Your task to perform on an android device: open app "Chime – Mobile Banking" (install if not already installed) and go to login screen Image 0: 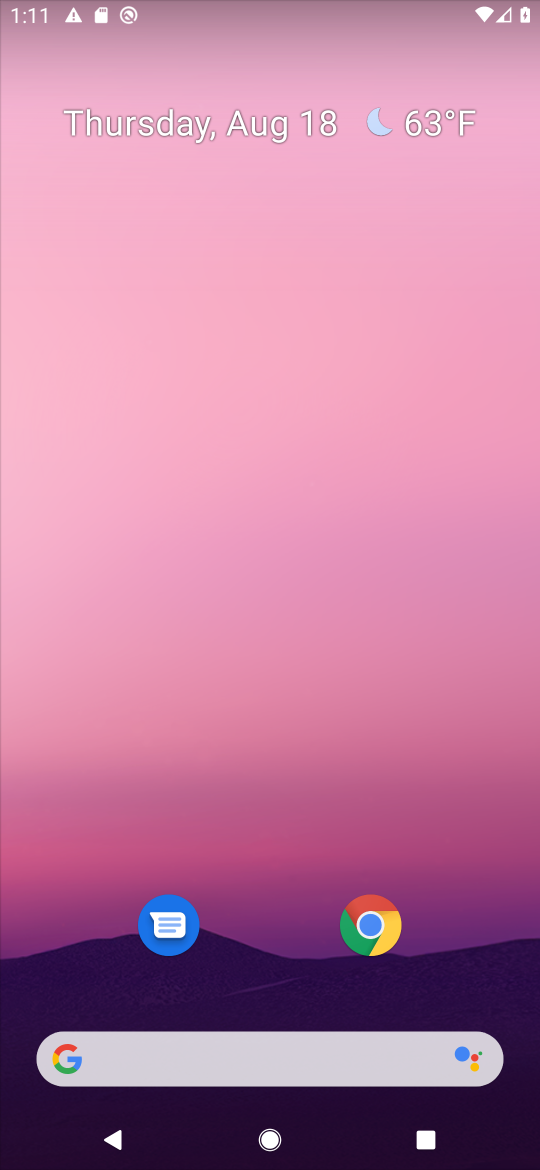
Step 0: click (291, 918)
Your task to perform on an android device: open app "Chime – Mobile Banking" (install if not already installed) and go to login screen Image 1: 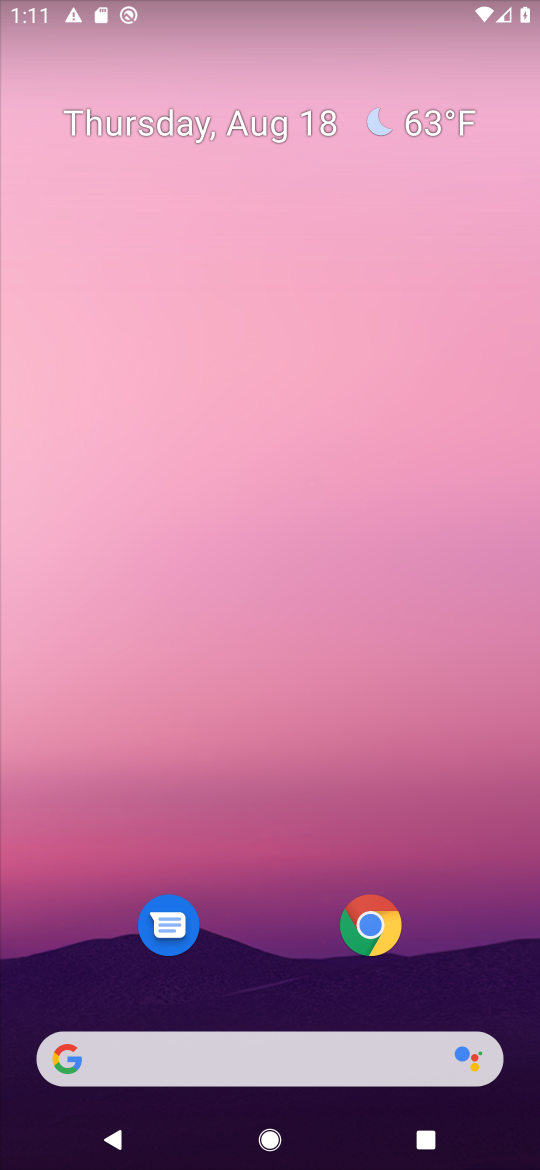
Step 1: drag from (245, 977) to (274, 251)
Your task to perform on an android device: open app "Chime – Mobile Banking" (install if not already installed) and go to login screen Image 2: 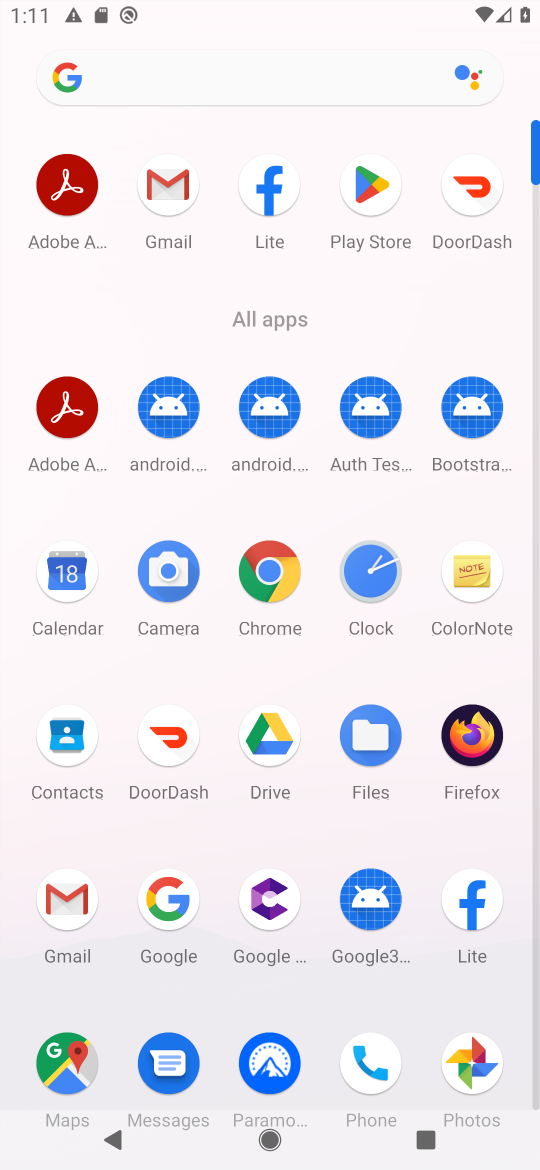
Step 2: click (368, 195)
Your task to perform on an android device: open app "Chime – Mobile Banking" (install if not already installed) and go to login screen Image 3: 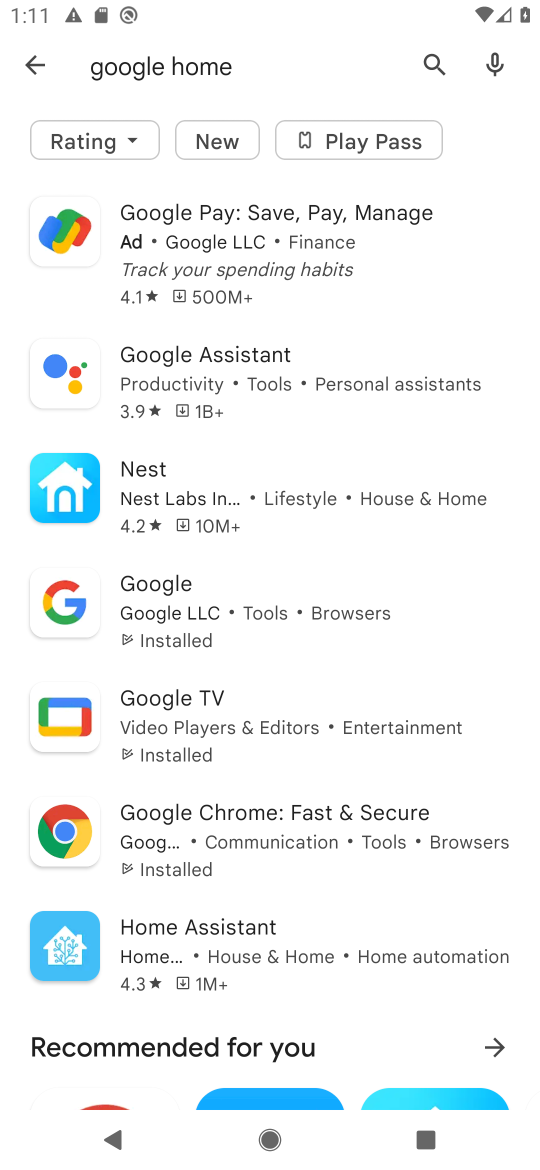
Step 3: click (48, 61)
Your task to perform on an android device: open app "Chime – Mobile Banking" (install if not already installed) and go to login screen Image 4: 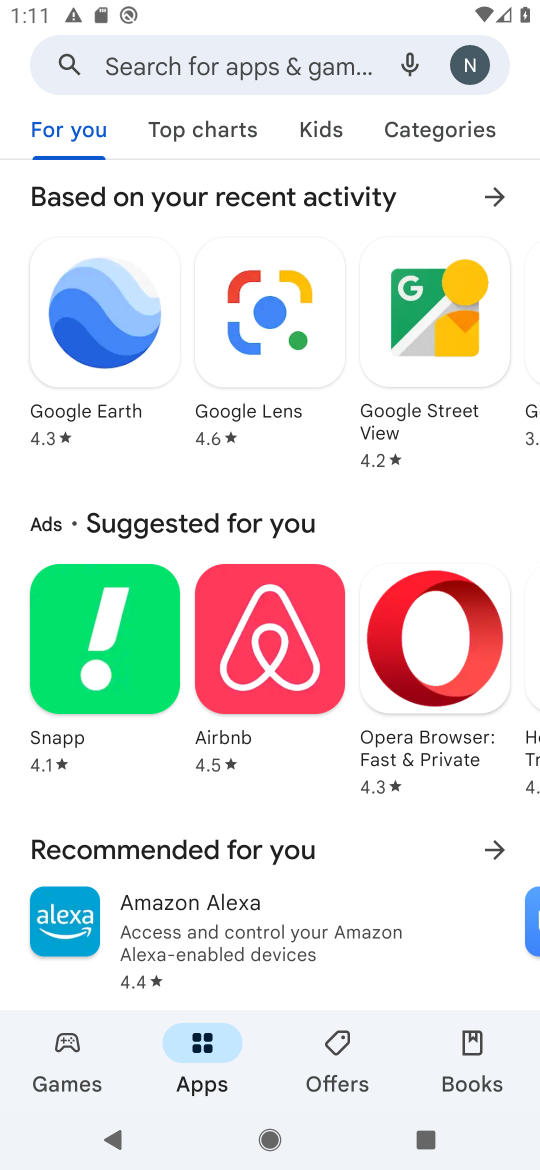
Step 4: click (179, 61)
Your task to perform on an android device: open app "Chime – Mobile Banking" (install if not already installed) and go to login screen Image 5: 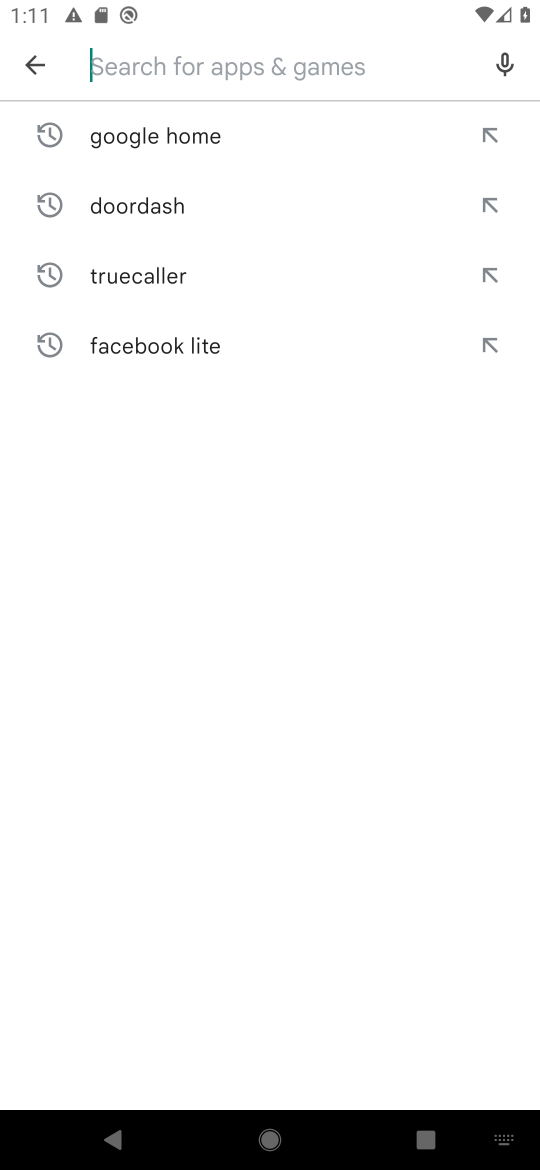
Step 5: type "Chime"
Your task to perform on an android device: open app "Chime – Mobile Banking" (install if not already installed) and go to login screen Image 6: 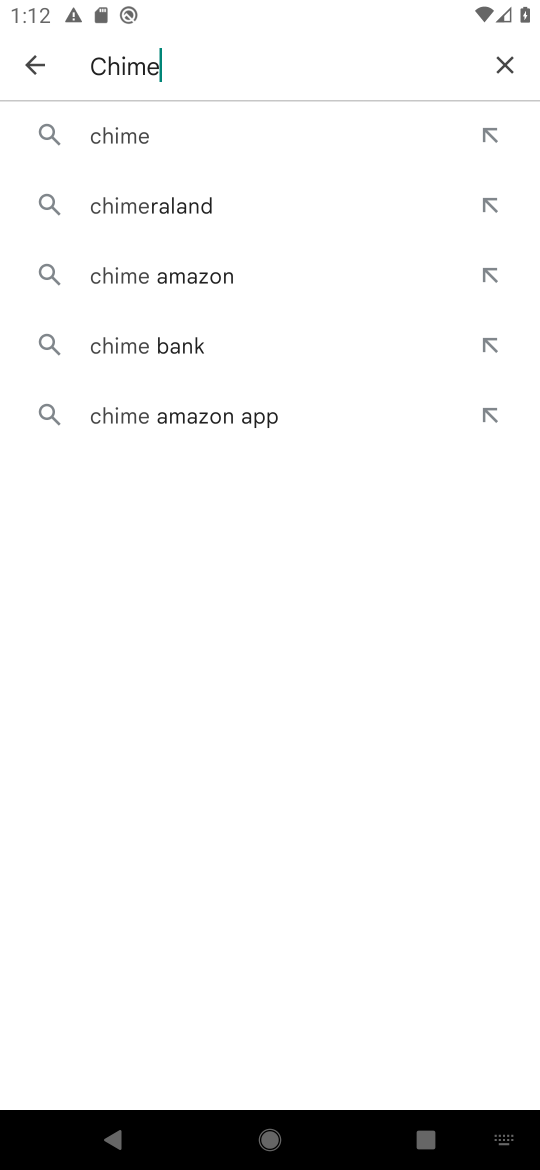
Step 6: click (120, 128)
Your task to perform on an android device: open app "Chime – Mobile Banking" (install if not already installed) and go to login screen Image 7: 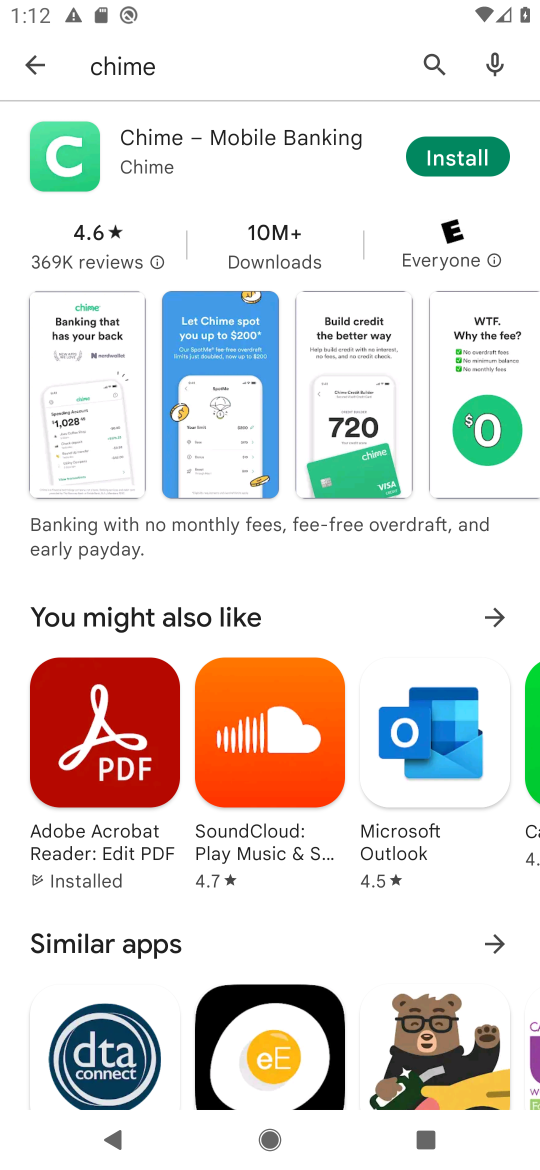
Step 7: click (475, 168)
Your task to perform on an android device: open app "Chime – Mobile Banking" (install if not already installed) and go to login screen Image 8: 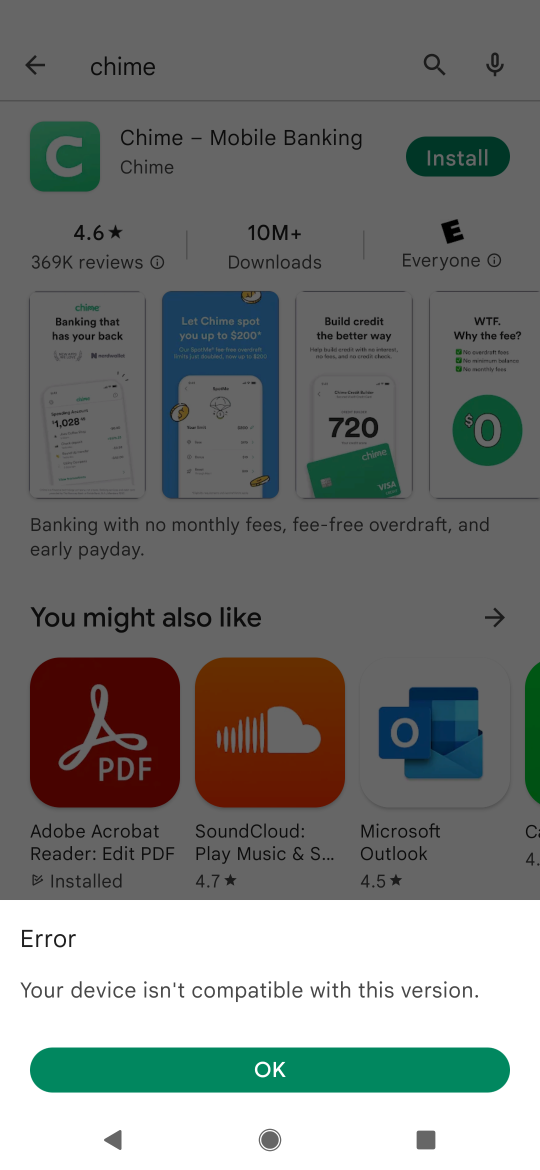
Step 8: click (283, 1084)
Your task to perform on an android device: open app "Chime – Mobile Banking" (install if not already installed) and go to login screen Image 9: 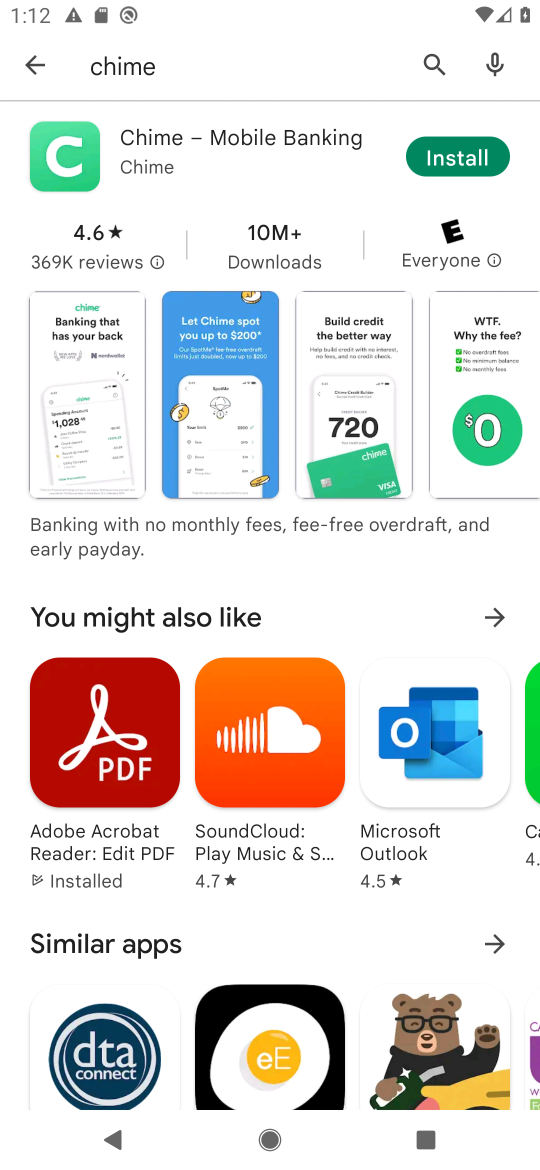
Step 9: task complete